Your task to perform on an android device: see sites visited before in the chrome app Image 0: 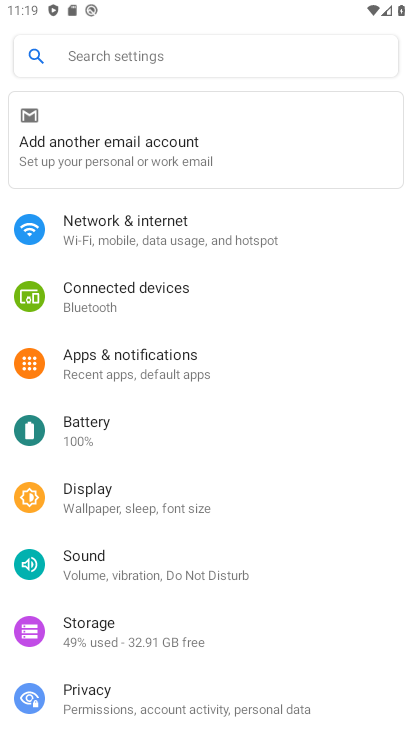
Step 0: press home button
Your task to perform on an android device: see sites visited before in the chrome app Image 1: 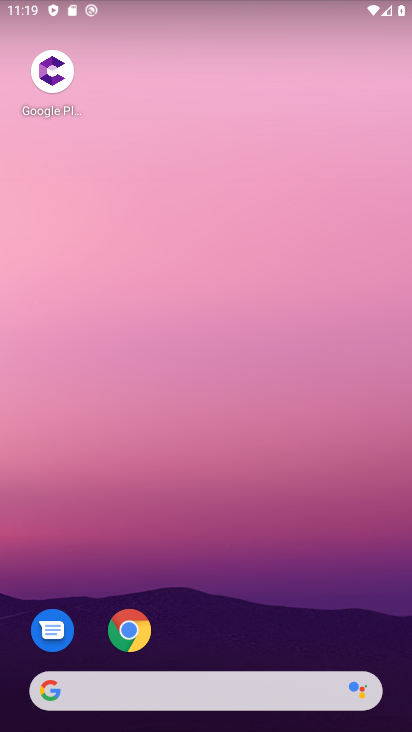
Step 1: drag from (190, 636) to (243, 146)
Your task to perform on an android device: see sites visited before in the chrome app Image 2: 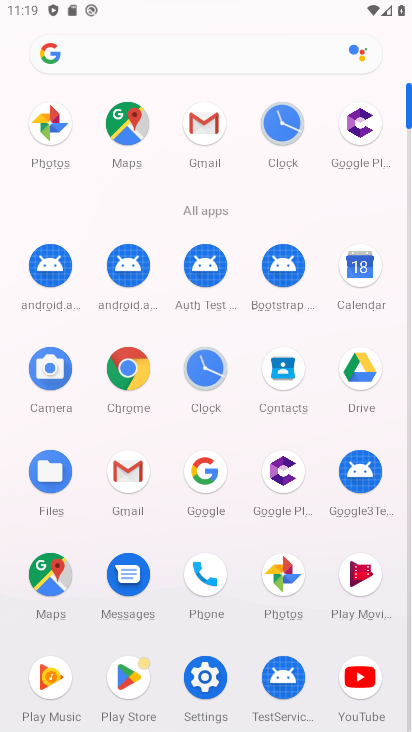
Step 2: click (134, 388)
Your task to perform on an android device: see sites visited before in the chrome app Image 3: 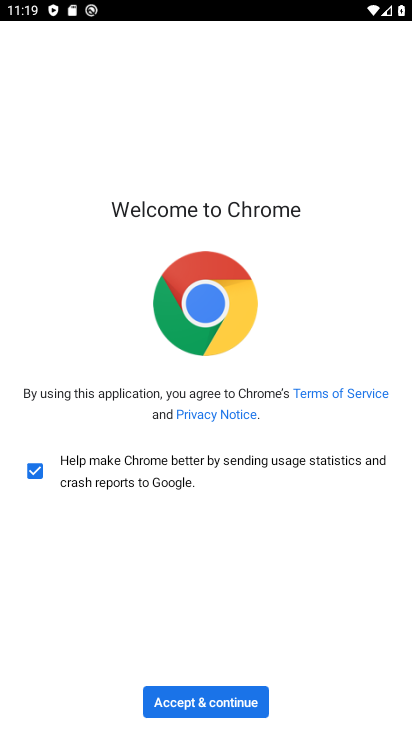
Step 3: click (216, 694)
Your task to perform on an android device: see sites visited before in the chrome app Image 4: 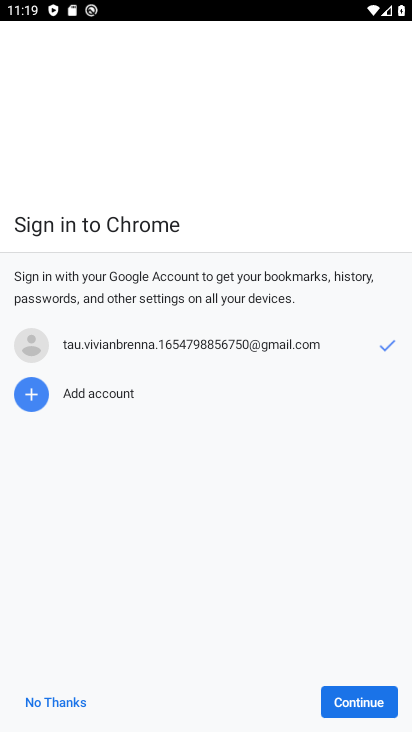
Step 4: click (351, 703)
Your task to perform on an android device: see sites visited before in the chrome app Image 5: 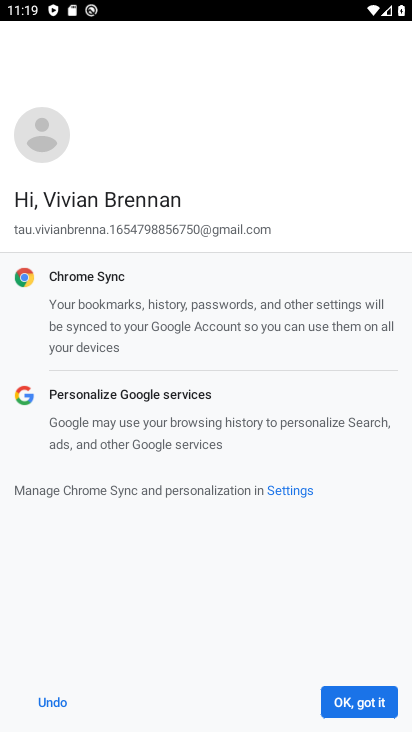
Step 5: click (351, 703)
Your task to perform on an android device: see sites visited before in the chrome app Image 6: 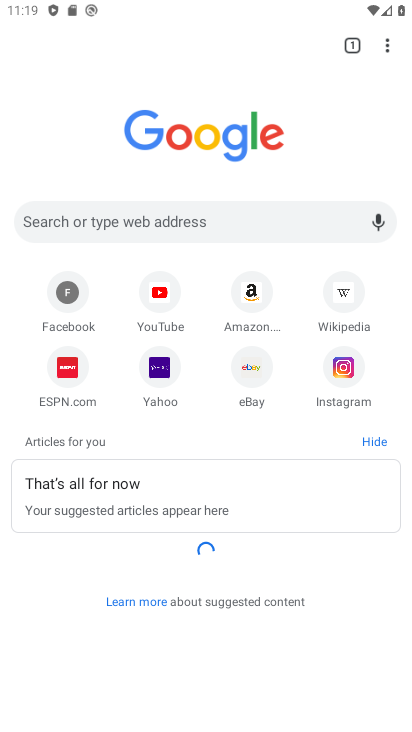
Step 6: click (380, 39)
Your task to perform on an android device: see sites visited before in the chrome app Image 7: 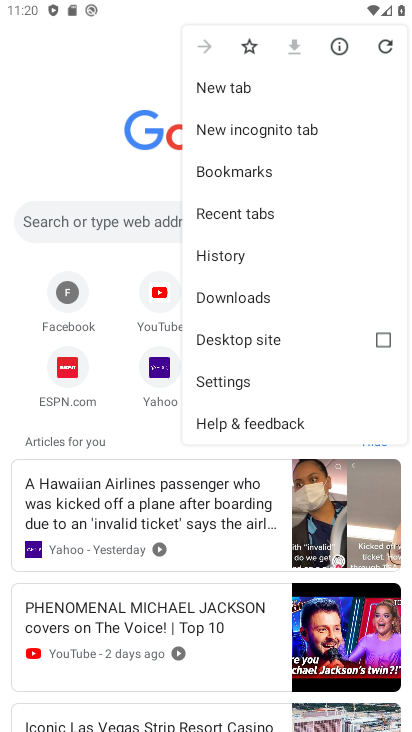
Step 7: click (222, 259)
Your task to perform on an android device: see sites visited before in the chrome app Image 8: 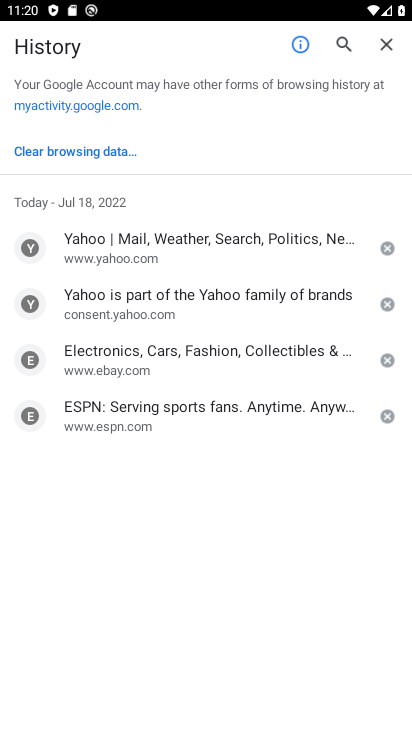
Step 8: task complete